Your task to perform on an android device: toggle airplane mode Image 0: 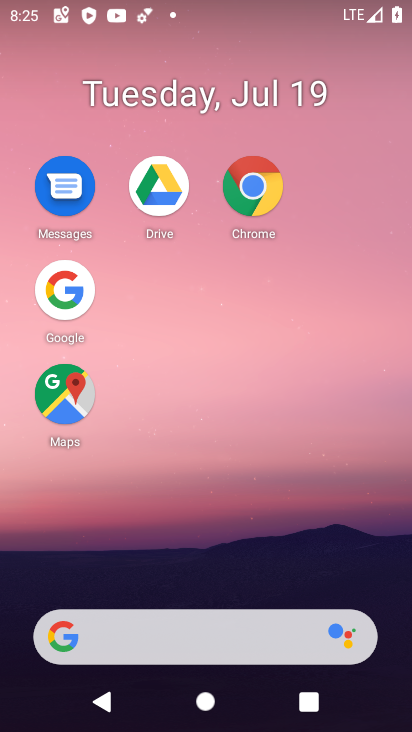
Step 0: drag from (295, 600) to (247, 0)
Your task to perform on an android device: toggle airplane mode Image 1: 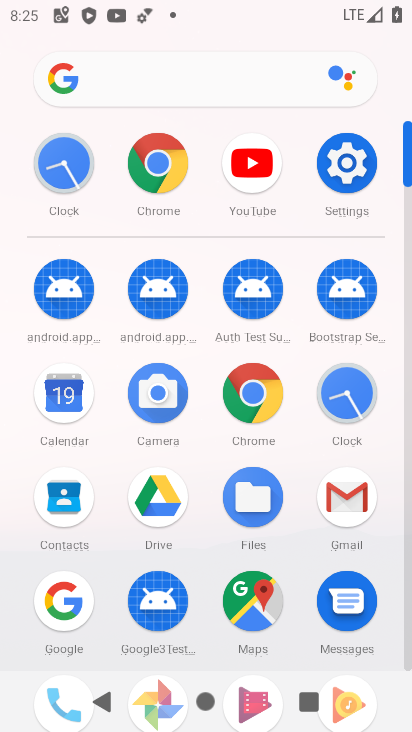
Step 1: click (355, 202)
Your task to perform on an android device: toggle airplane mode Image 2: 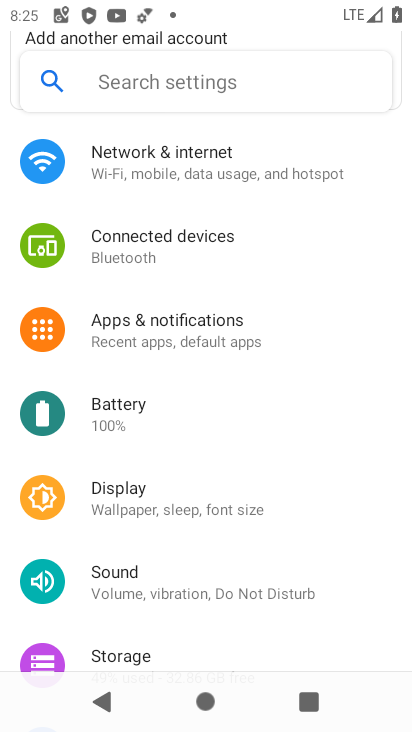
Step 2: click (180, 162)
Your task to perform on an android device: toggle airplane mode Image 3: 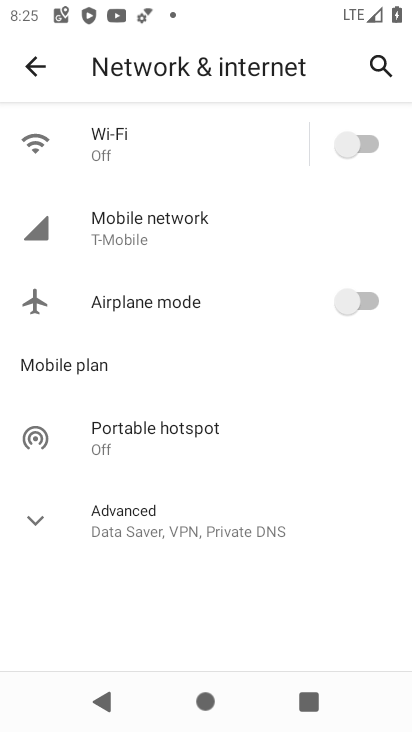
Step 3: click (360, 311)
Your task to perform on an android device: toggle airplane mode Image 4: 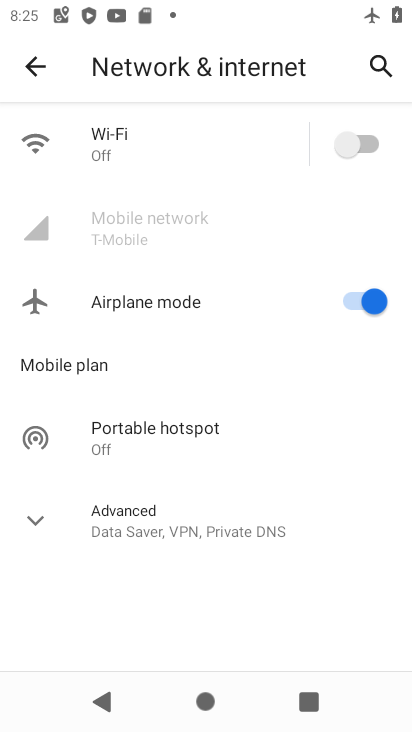
Step 4: task complete